Your task to perform on an android device: turn off location history Image 0: 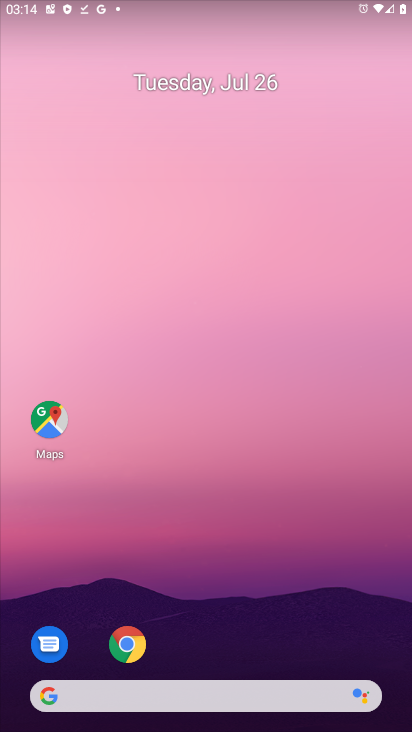
Step 0: drag from (205, 611) to (151, 163)
Your task to perform on an android device: turn off location history Image 1: 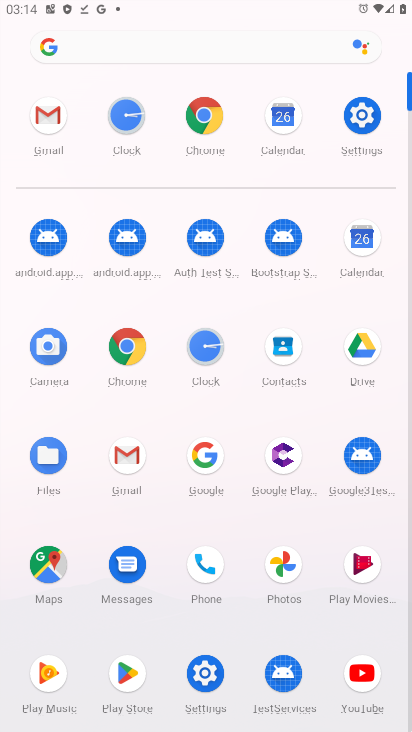
Step 1: click (209, 664)
Your task to perform on an android device: turn off location history Image 2: 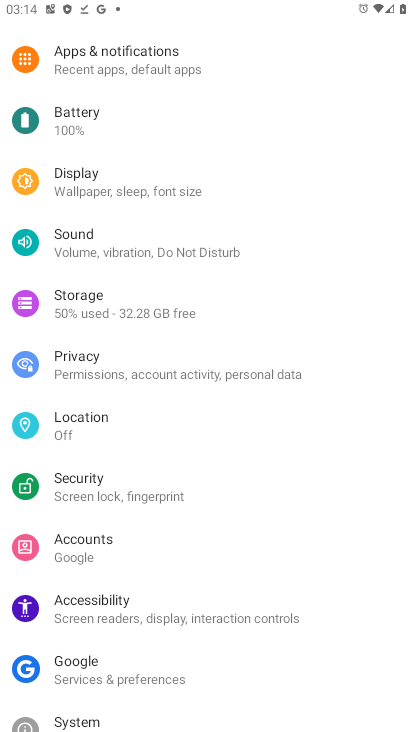
Step 2: click (97, 427)
Your task to perform on an android device: turn off location history Image 3: 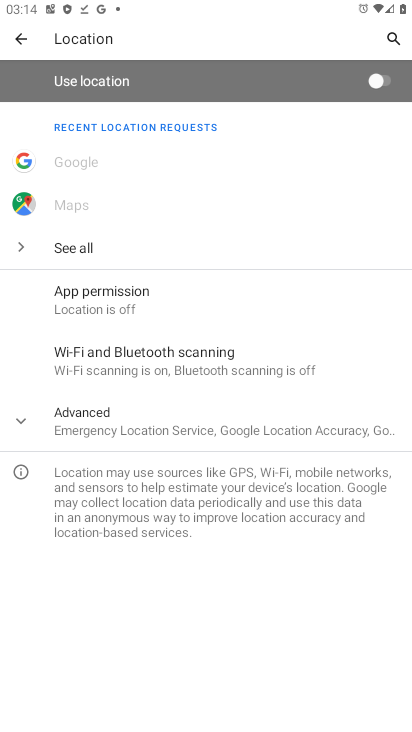
Step 3: click (147, 407)
Your task to perform on an android device: turn off location history Image 4: 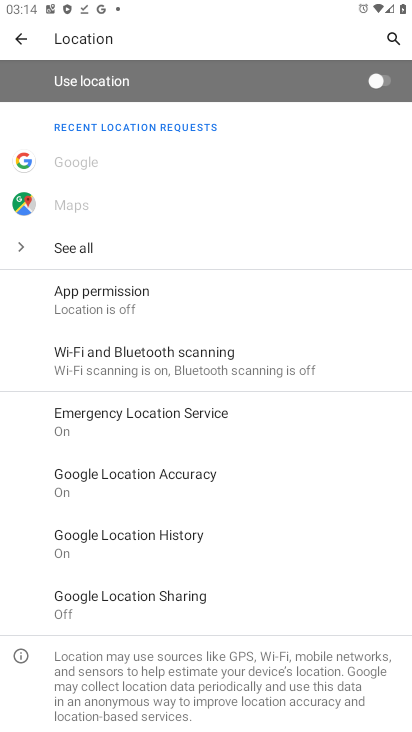
Step 4: click (156, 525)
Your task to perform on an android device: turn off location history Image 5: 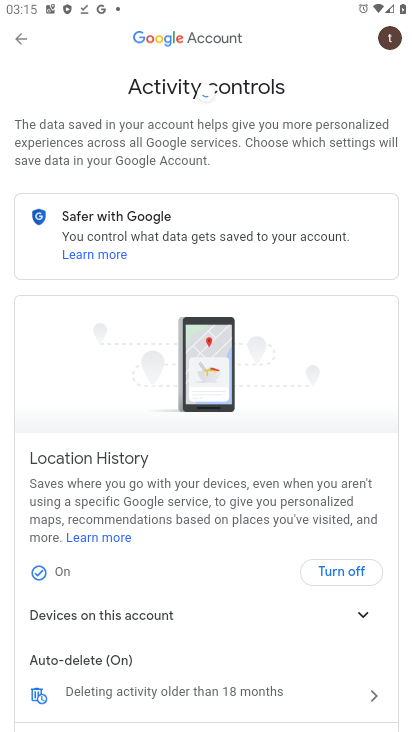
Step 5: click (371, 569)
Your task to perform on an android device: turn off location history Image 6: 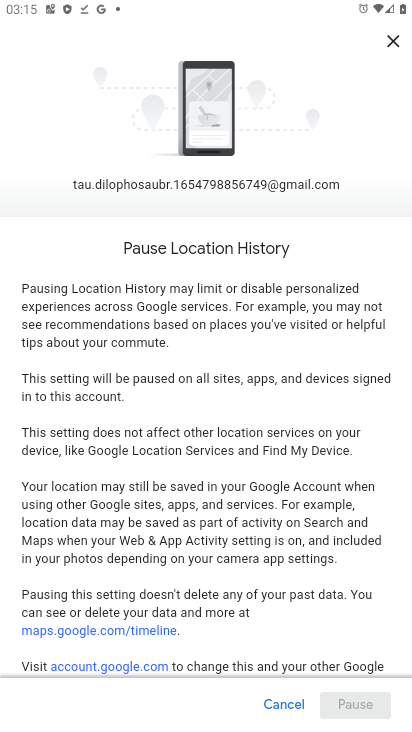
Step 6: drag from (318, 526) to (219, 63)
Your task to perform on an android device: turn off location history Image 7: 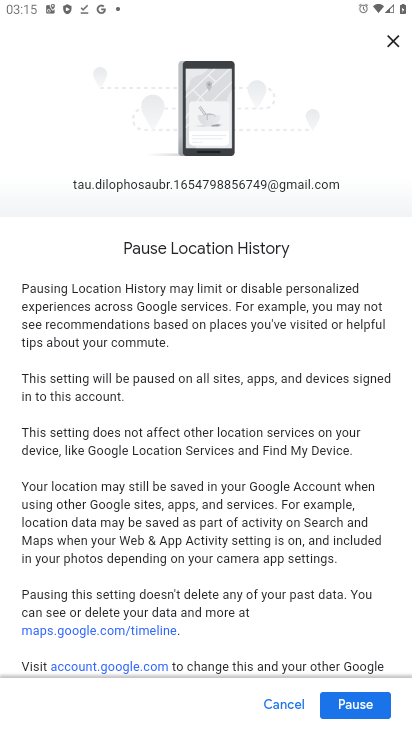
Step 7: click (366, 694)
Your task to perform on an android device: turn off location history Image 8: 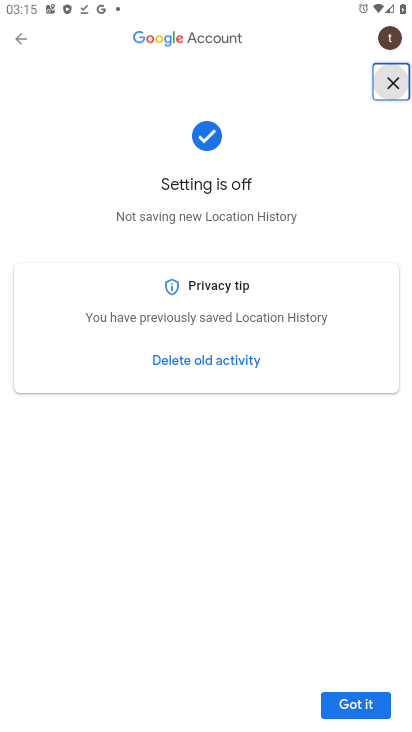
Step 8: click (381, 695)
Your task to perform on an android device: turn off location history Image 9: 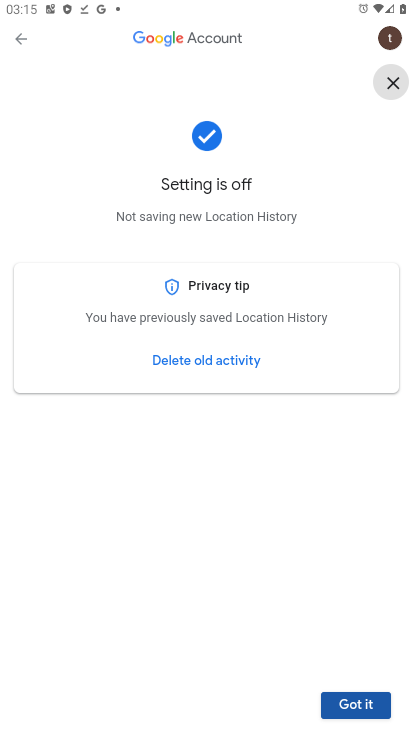
Step 9: task complete